Your task to perform on an android device: manage bookmarks in the chrome app Image 0: 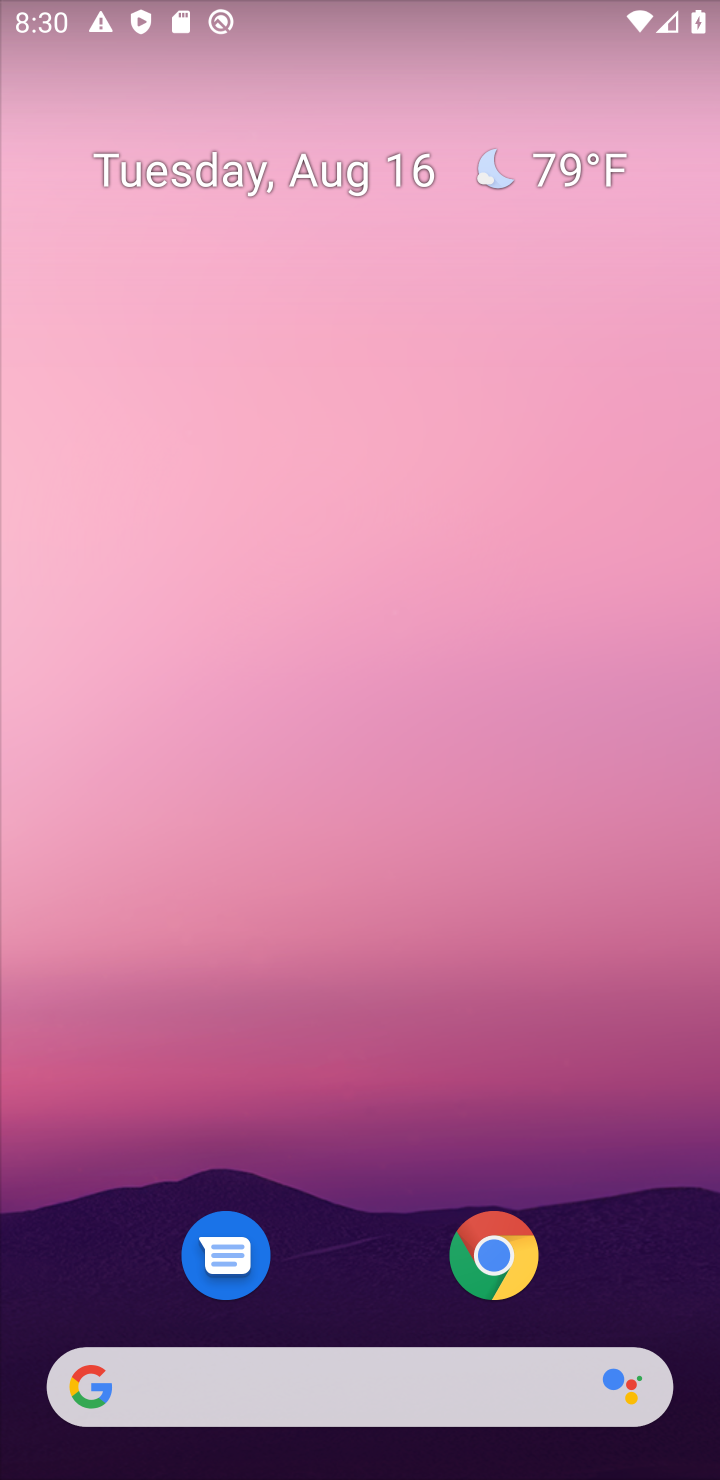
Step 0: click (500, 1266)
Your task to perform on an android device: manage bookmarks in the chrome app Image 1: 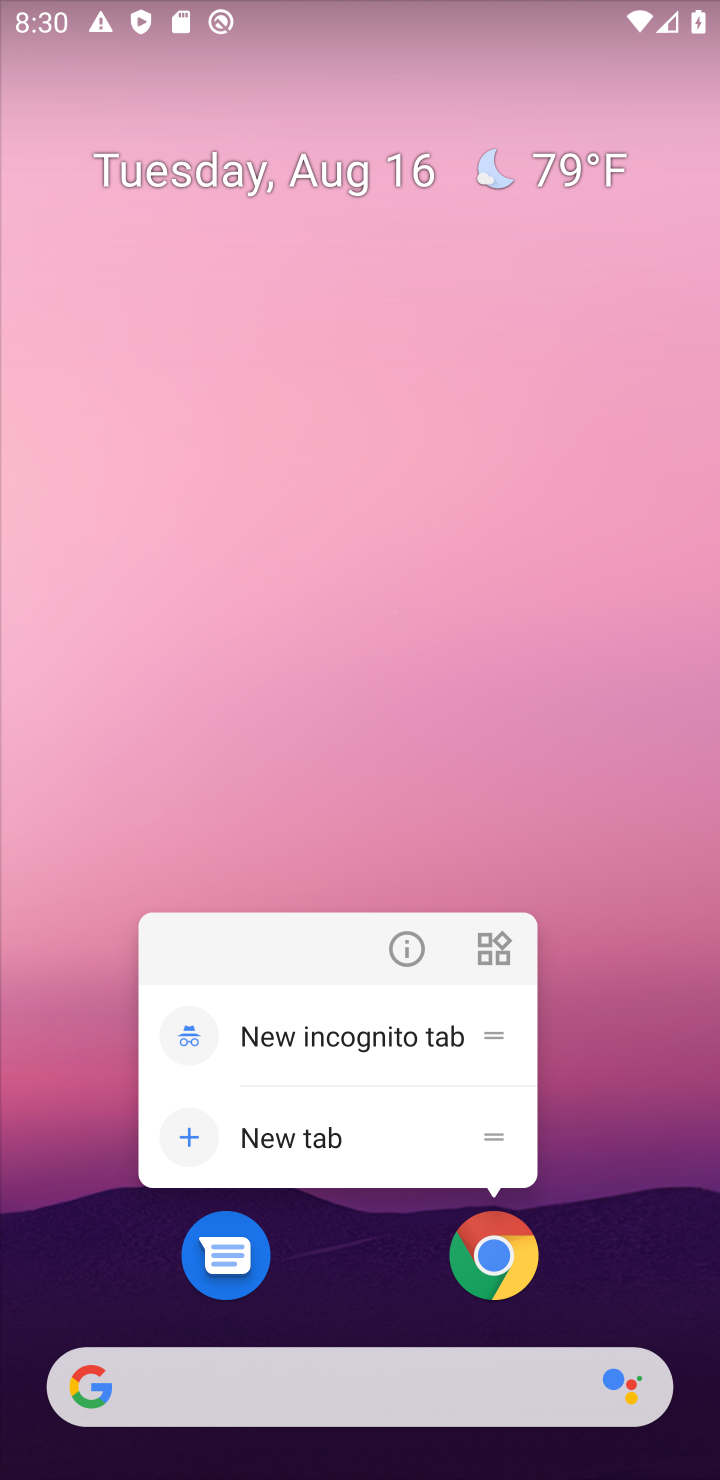
Step 1: click (500, 1266)
Your task to perform on an android device: manage bookmarks in the chrome app Image 2: 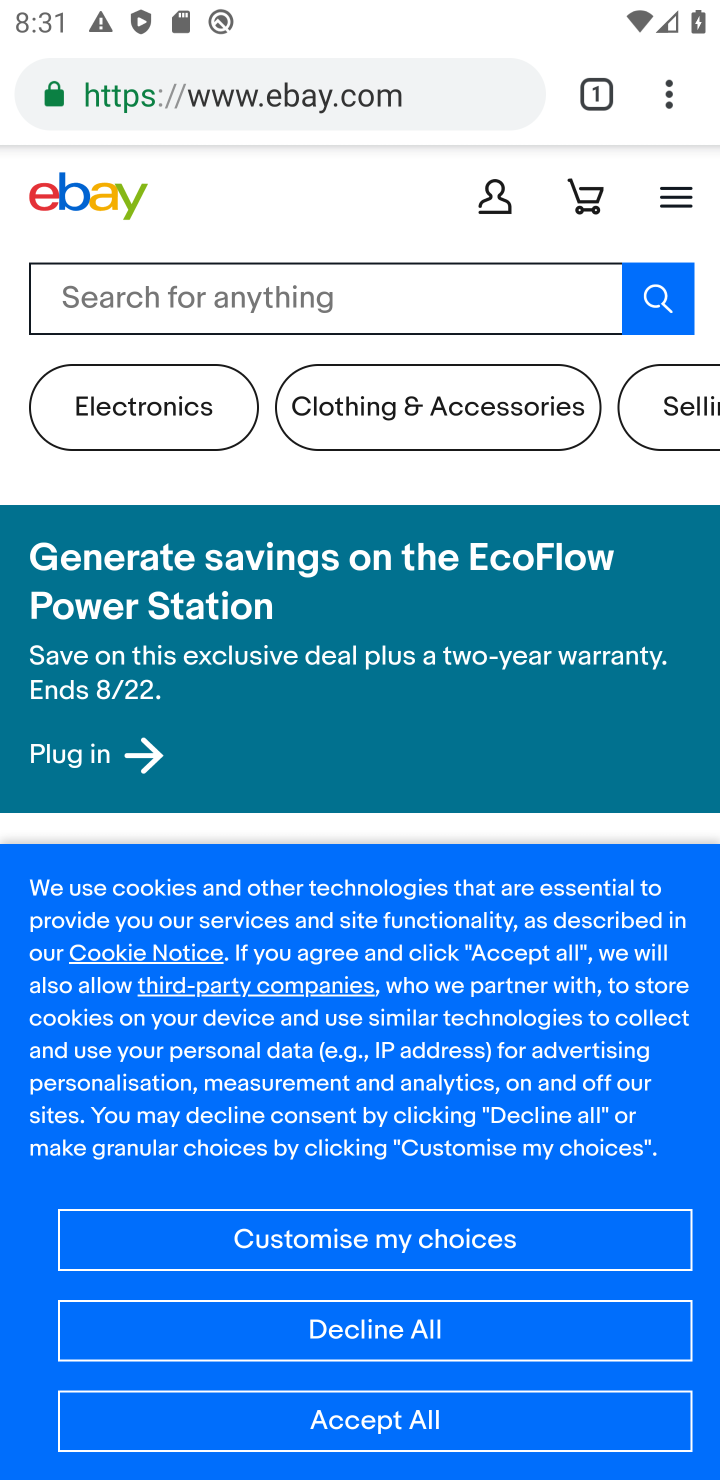
Step 2: click (667, 89)
Your task to perform on an android device: manage bookmarks in the chrome app Image 3: 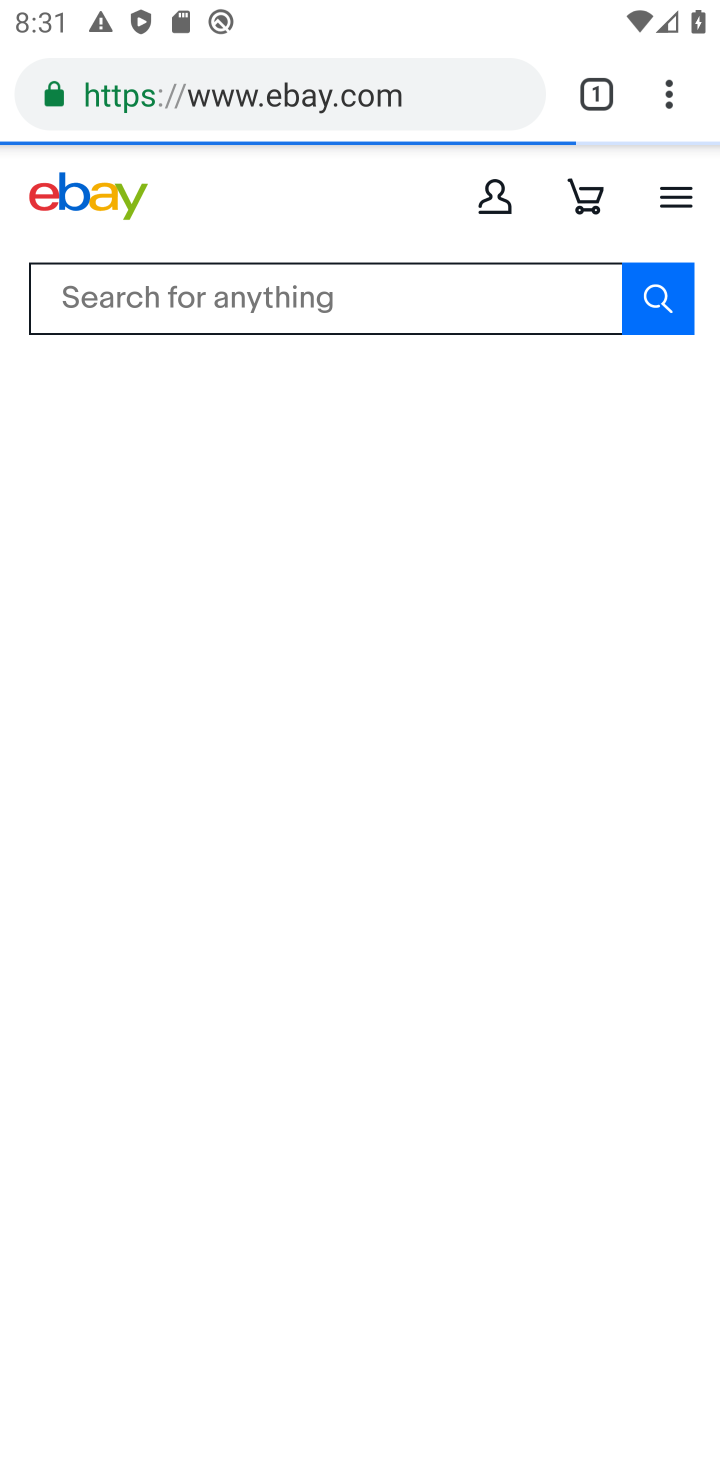
Step 3: drag from (670, 97) to (364, 474)
Your task to perform on an android device: manage bookmarks in the chrome app Image 4: 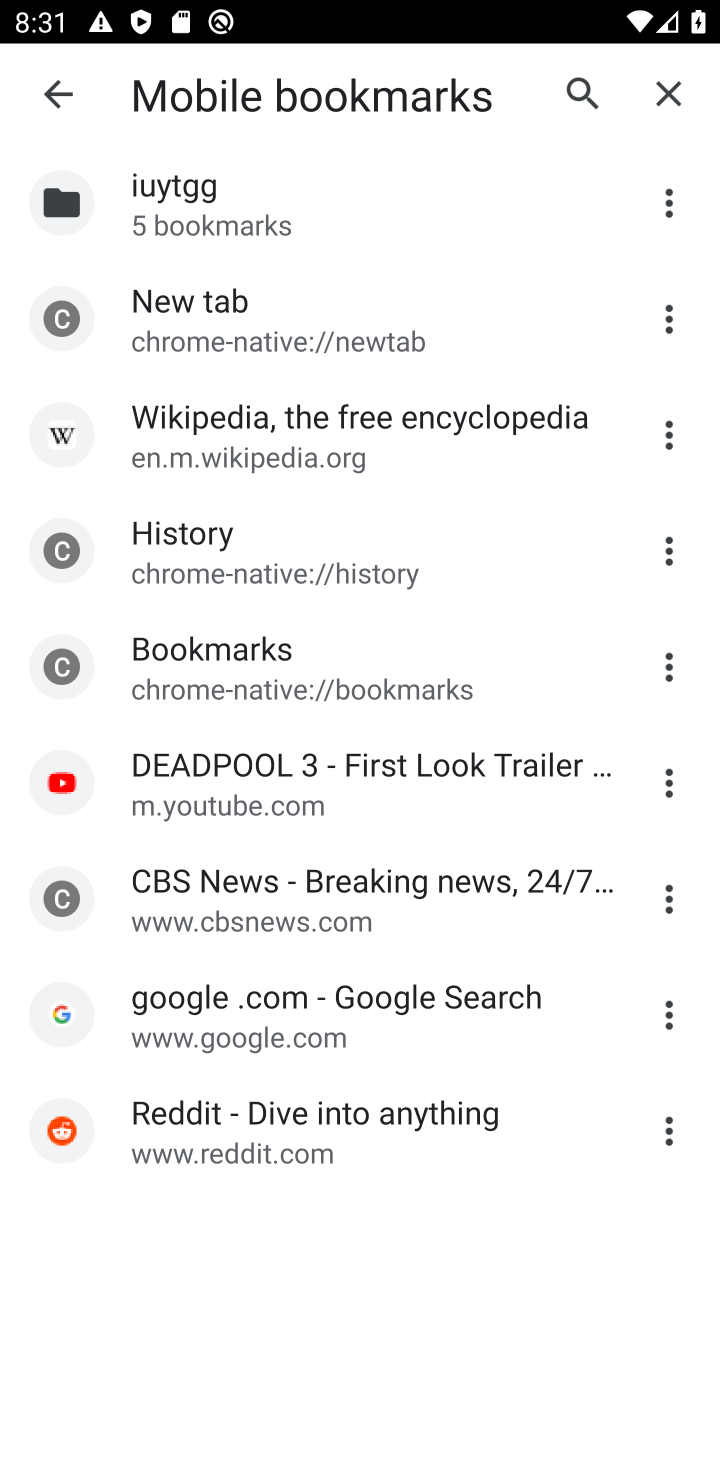
Step 4: click (672, 437)
Your task to perform on an android device: manage bookmarks in the chrome app Image 5: 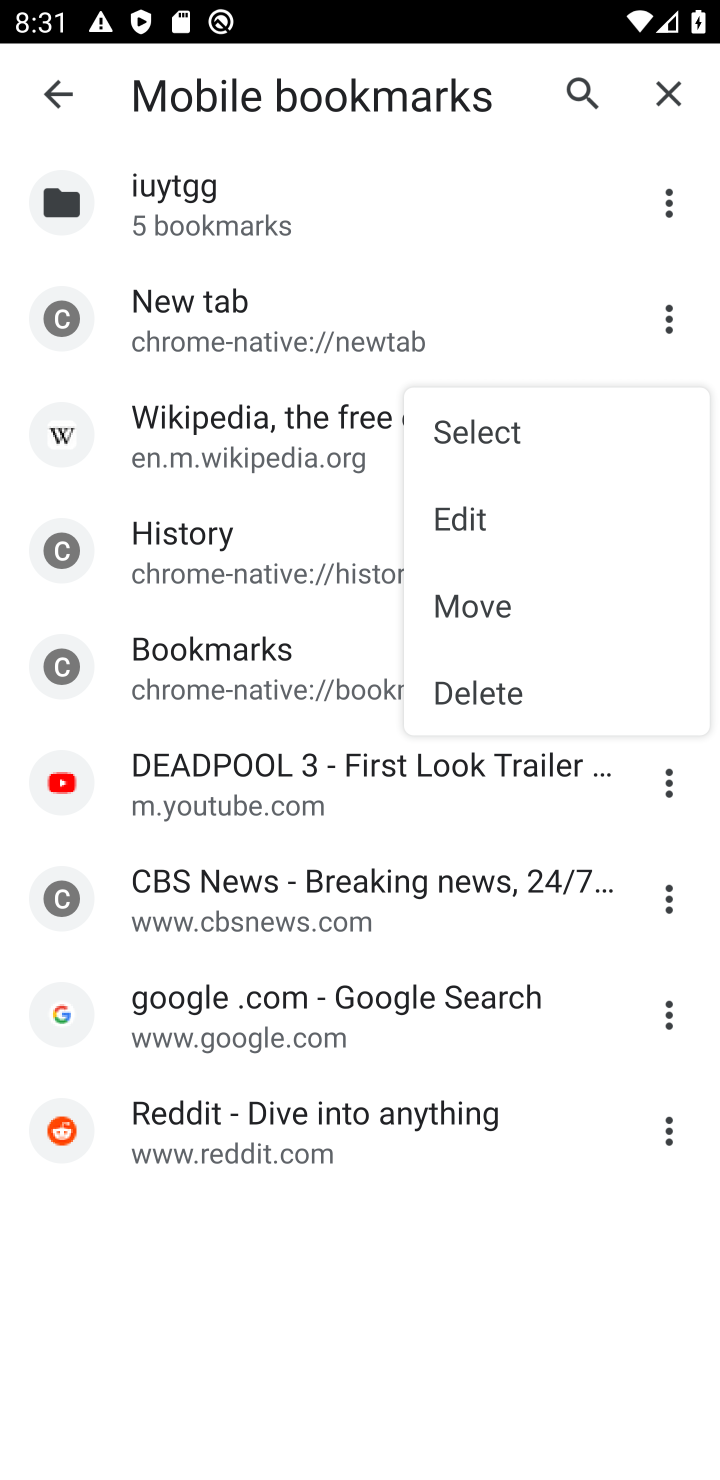
Step 5: click (512, 700)
Your task to perform on an android device: manage bookmarks in the chrome app Image 6: 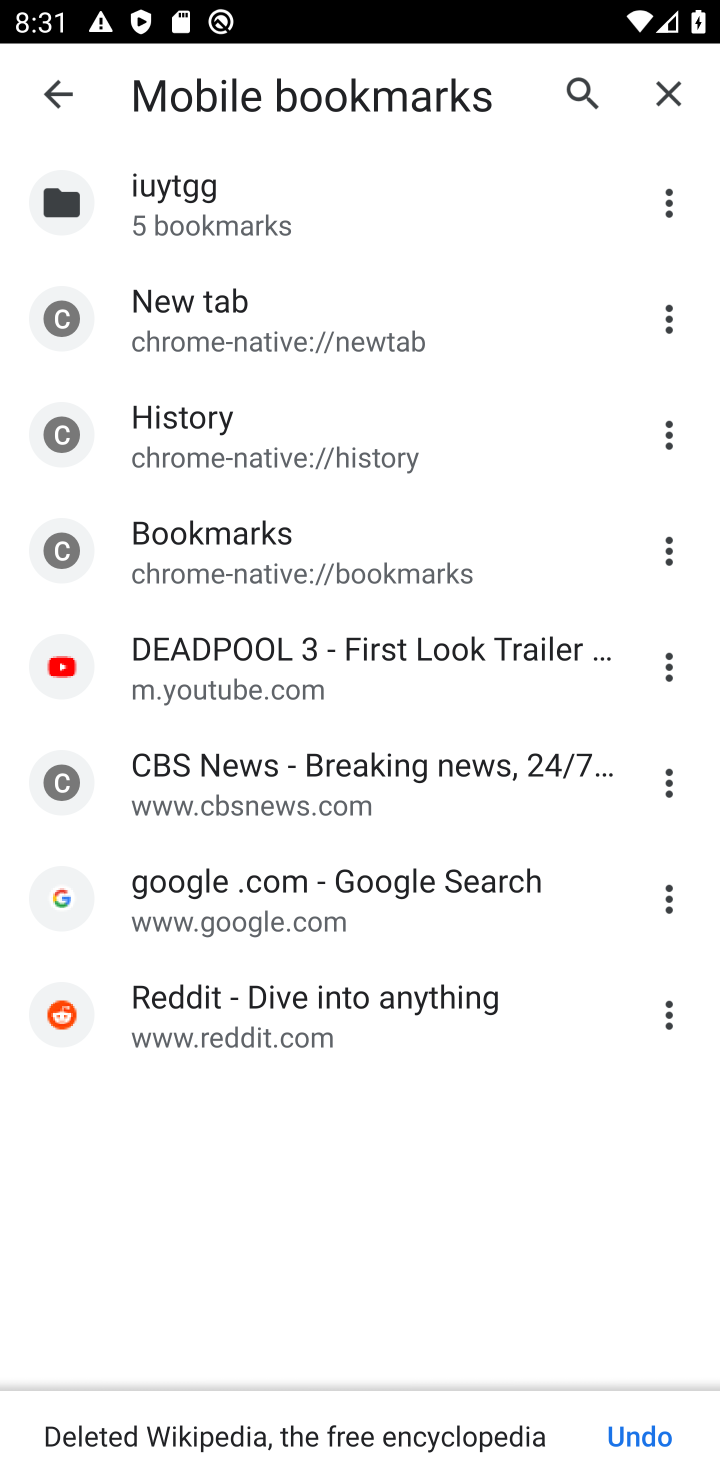
Step 6: task complete